Your task to perform on an android device: delete the emails in spam in the gmail app Image 0: 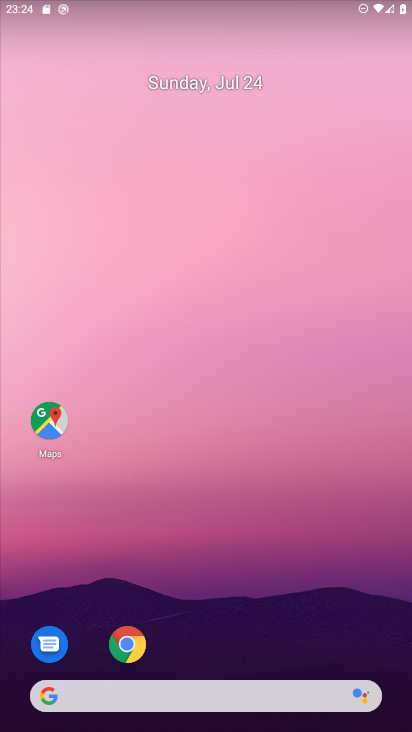
Step 0: drag from (375, 656) to (355, 105)
Your task to perform on an android device: delete the emails in spam in the gmail app Image 1: 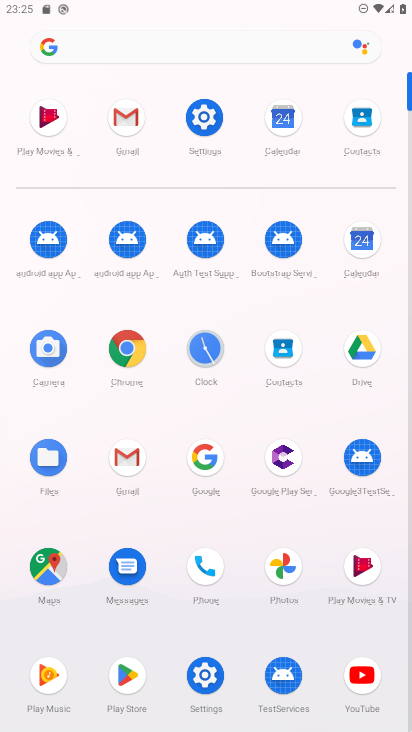
Step 1: click (127, 459)
Your task to perform on an android device: delete the emails in spam in the gmail app Image 2: 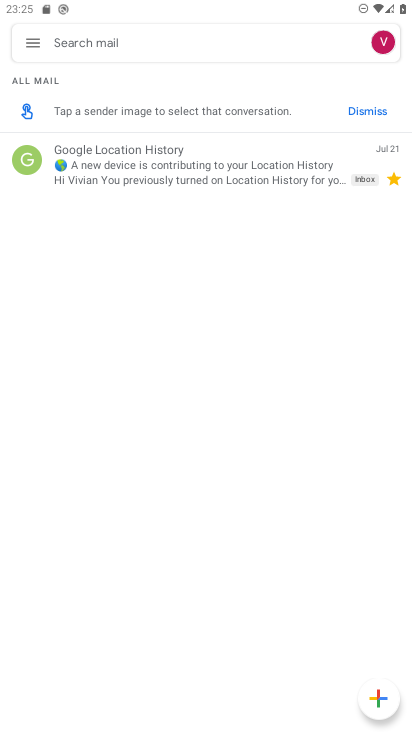
Step 2: press back button
Your task to perform on an android device: delete the emails in spam in the gmail app Image 3: 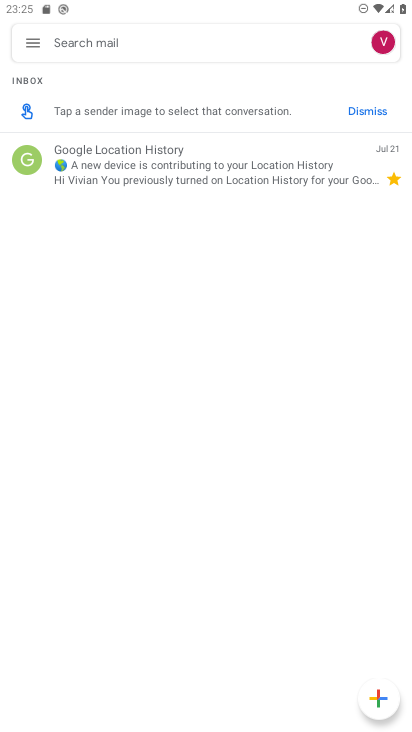
Step 3: click (36, 48)
Your task to perform on an android device: delete the emails in spam in the gmail app Image 4: 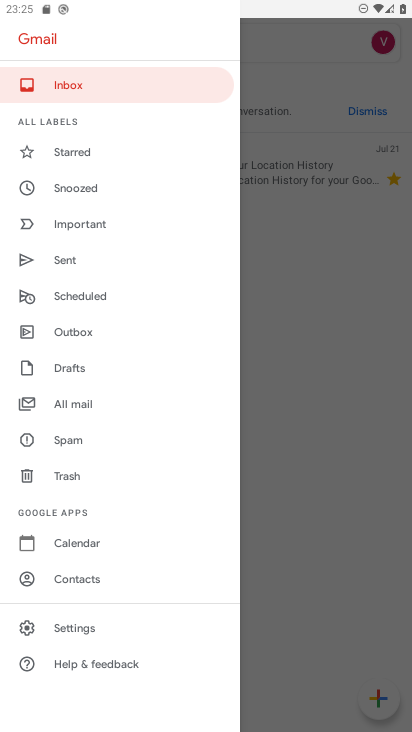
Step 4: click (69, 439)
Your task to perform on an android device: delete the emails in spam in the gmail app Image 5: 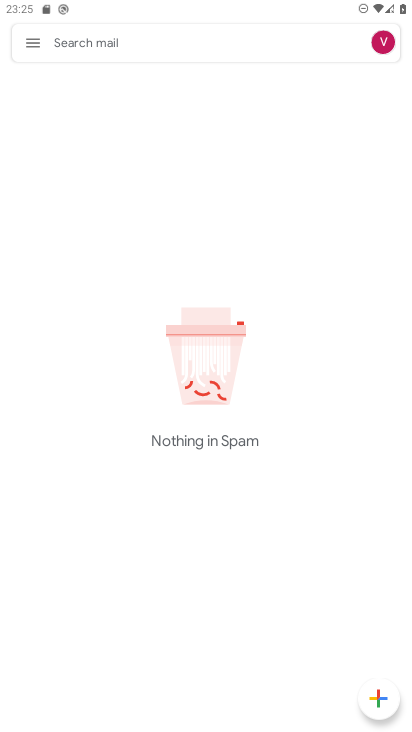
Step 5: task complete